Your task to perform on an android device: check data usage Image 0: 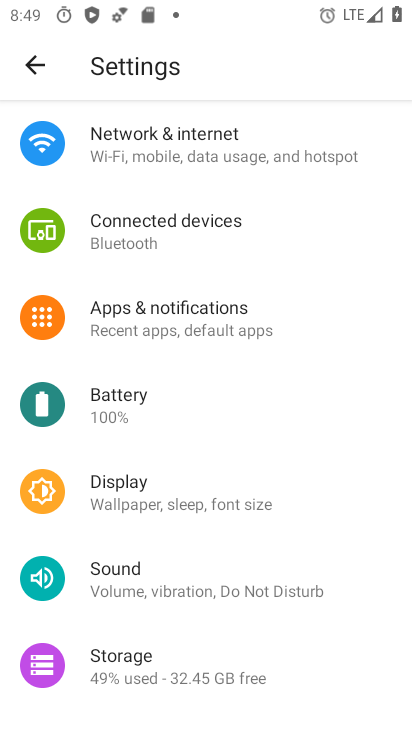
Step 0: click (199, 150)
Your task to perform on an android device: check data usage Image 1: 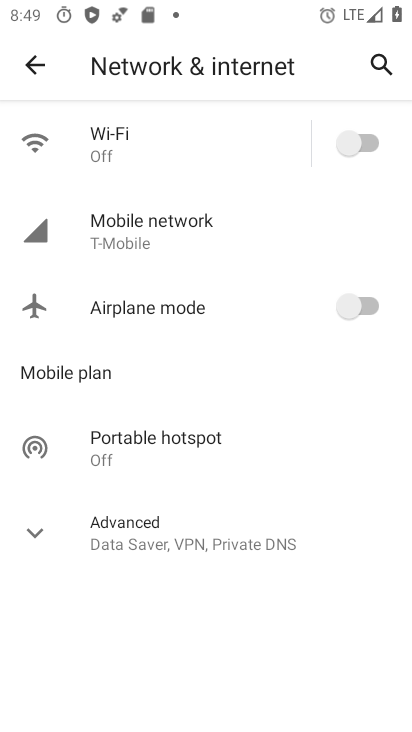
Step 1: click (178, 229)
Your task to perform on an android device: check data usage Image 2: 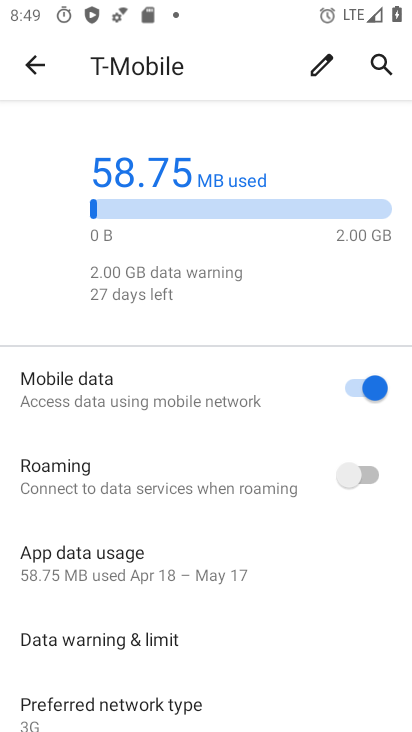
Step 2: task complete